Your task to perform on an android device: Do I have any events today? Image 0: 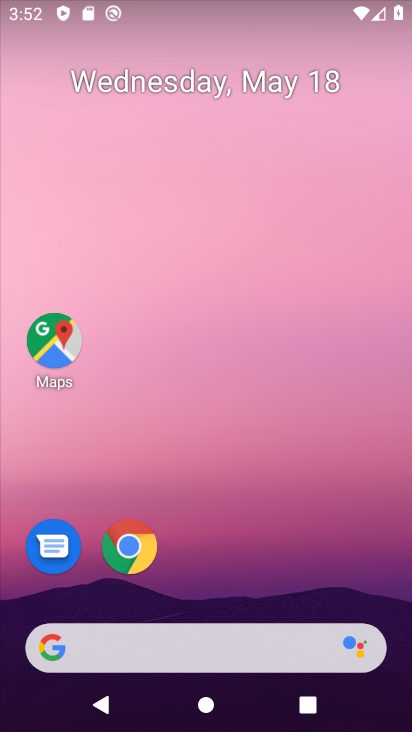
Step 0: drag from (220, 595) to (186, 10)
Your task to perform on an android device: Do I have any events today? Image 1: 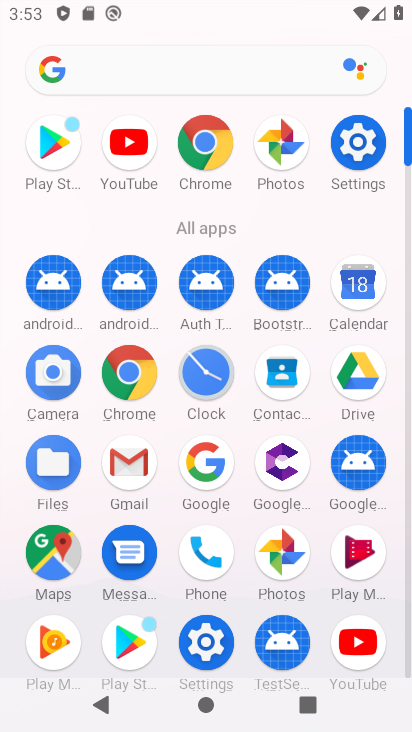
Step 1: click (357, 301)
Your task to perform on an android device: Do I have any events today? Image 2: 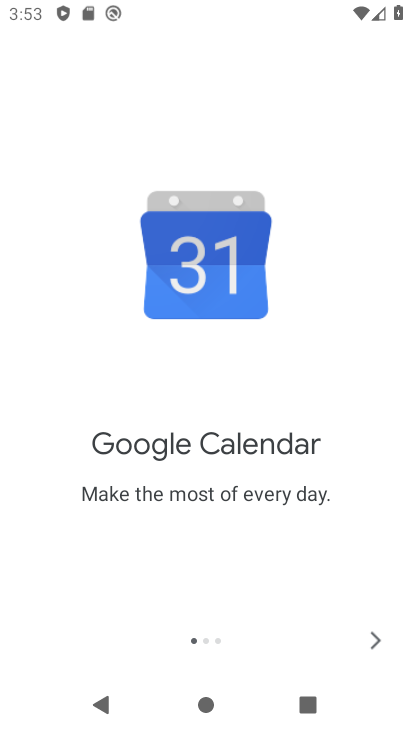
Step 2: click (376, 629)
Your task to perform on an android device: Do I have any events today? Image 3: 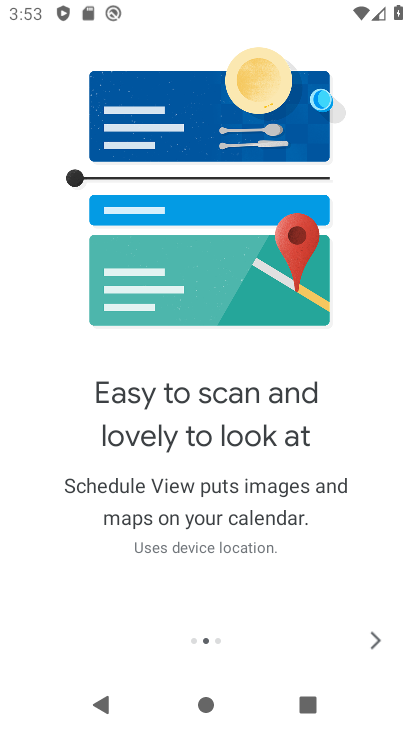
Step 3: click (377, 631)
Your task to perform on an android device: Do I have any events today? Image 4: 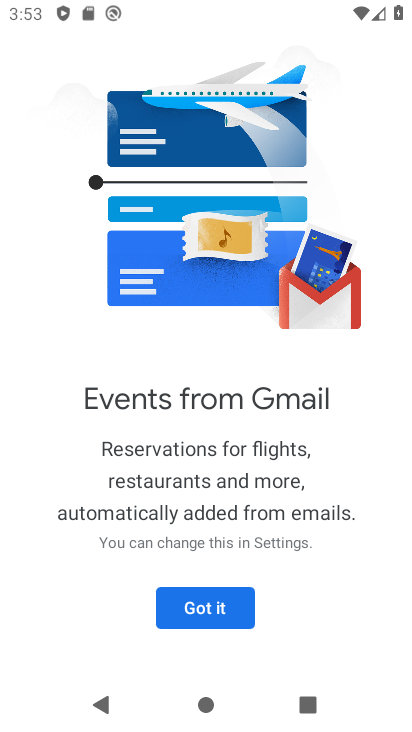
Step 4: click (191, 595)
Your task to perform on an android device: Do I have any events today? Image 5: 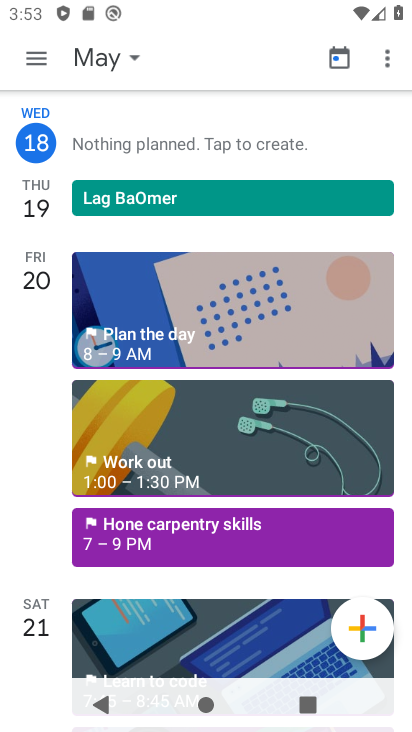
Step 5: click (45, 56)
Your task to perform on an android device: Do I have any events today? Image 6: 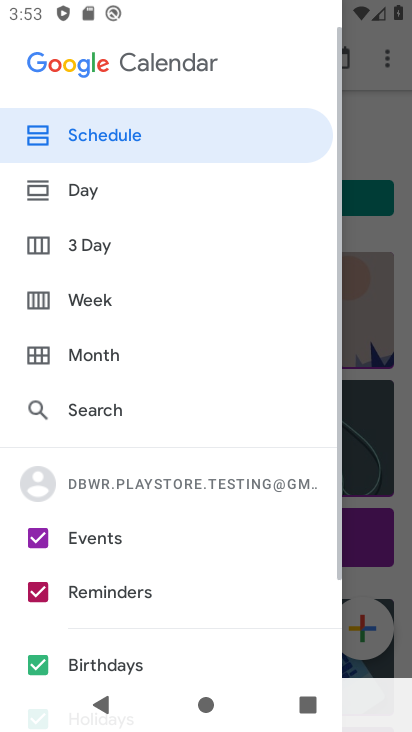
Step 6: click (96, 594)
Your task to perform on an android device: Do I have any events today? Image 7: 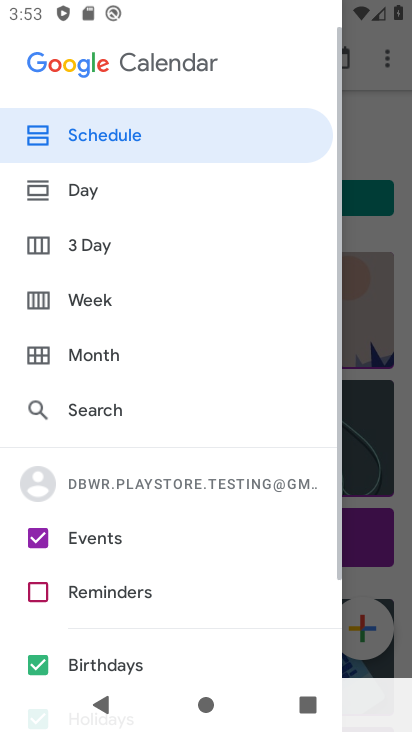
Step 7: click (80, 666)
Your task to perform on an android device: Do I have any events today? Image 8: 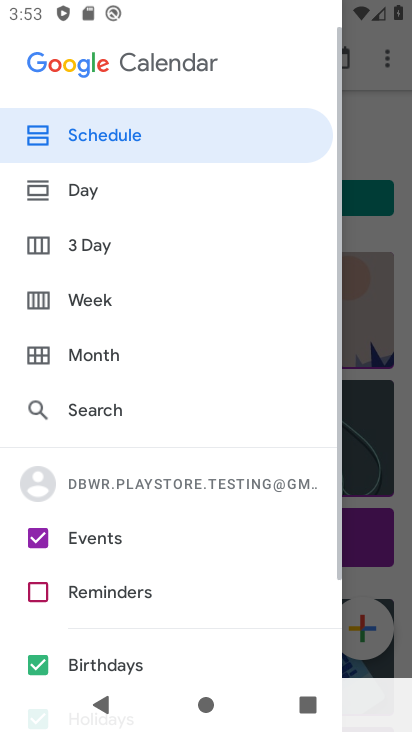
Step 8: drag from (193, 641) to (210, 381)
Your task to perform on an android device: Do I have any events today? Image 9: 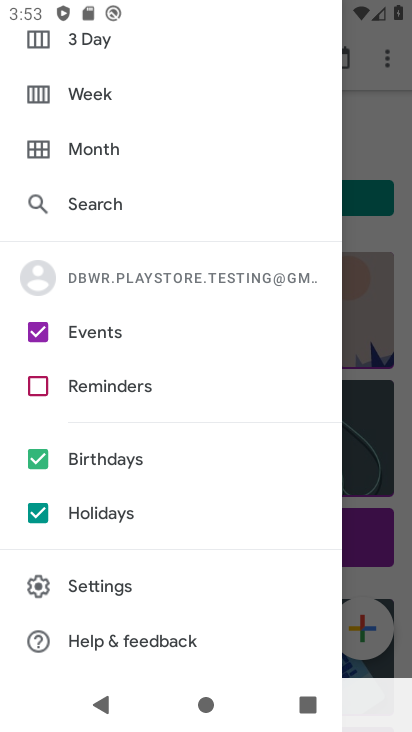
Step 9: click (70, 514)
Your task to perform on an android device: Do I have any events today? Image 10: 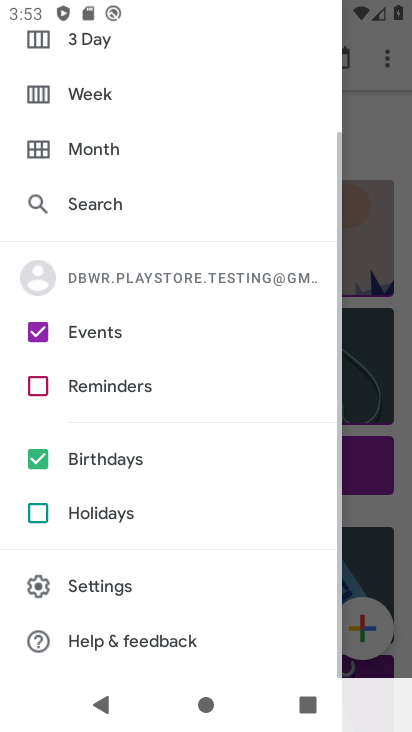
Step 10: click (89, 461)
Your task to perform on an android device: Do I have any events today? Image 11: 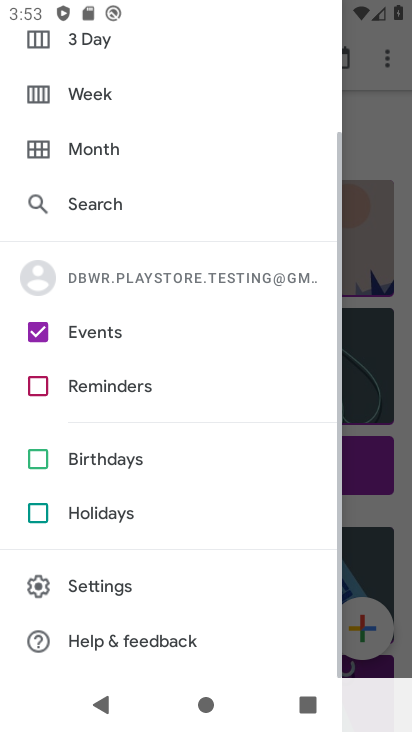
Step 11: drag from (175, 250) to (175, 598)
Your task to perform on an android device: Do I have any events today? Image 12: 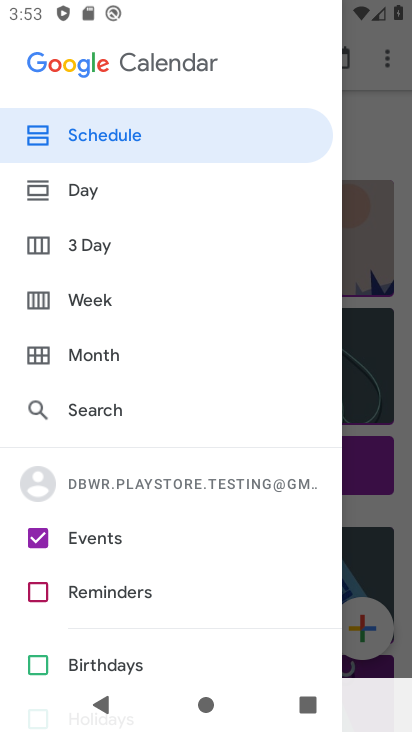
Step 12: click (84, 198)
Your task to perform on an android device: Do I have any events today? Image 13: 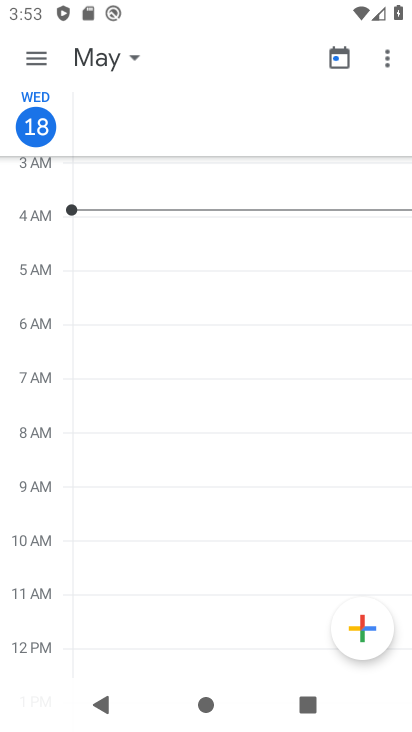
Step 13: task complete